Your task to perform on an android device: Open Chrome and go to settings Image 0: 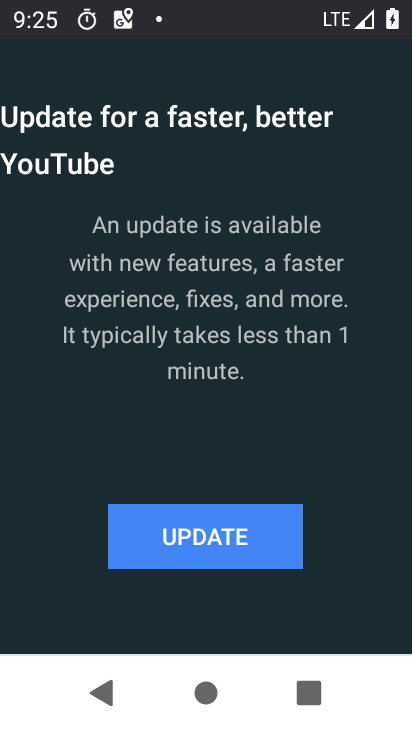
Step 0: press home button
Your task to perform on an android device: Open Chrome and go to settings Image 1: 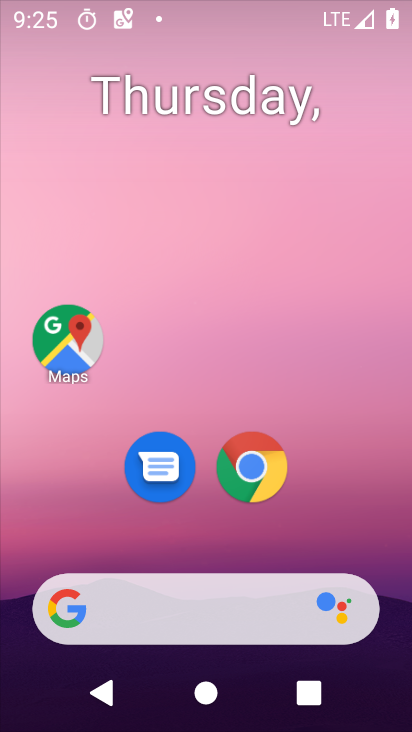
Step 1: drag from (346, 506) to (339, 60)
Your task to perform on an android device: Open Chrome and go to settings Image 2: 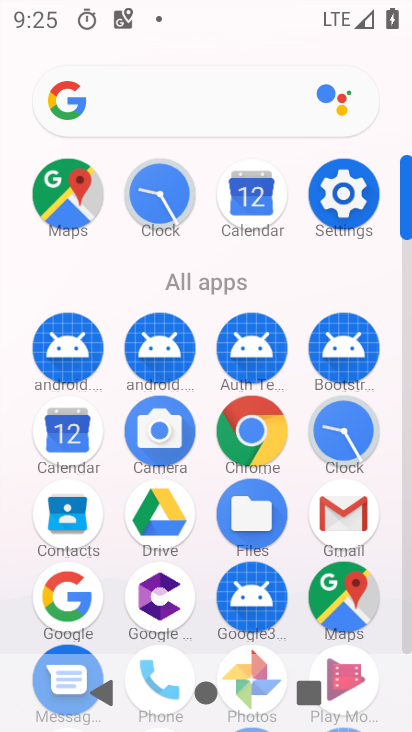
Step 2: click (353, 211)
Your task to perform on an android device: Open Chrome and go to settings Image 3: 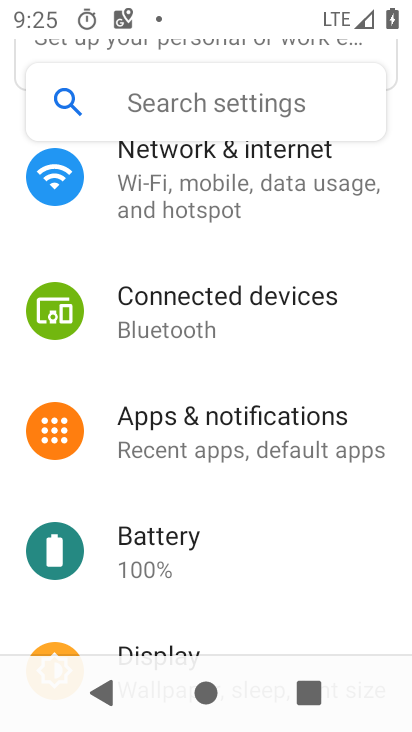
Step 3: press home button
Your task to perform on an android device: Open Chrome and go to settings Image 4: 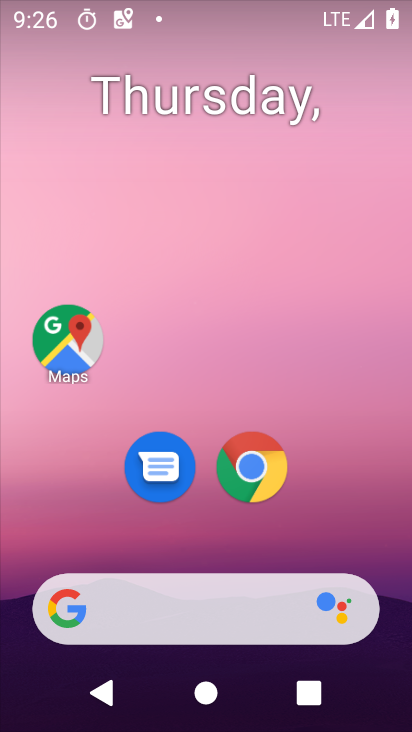
Step 4: click (263, 467)
Your task to perform on an android device: Open Chrome and go to settings Image 5: 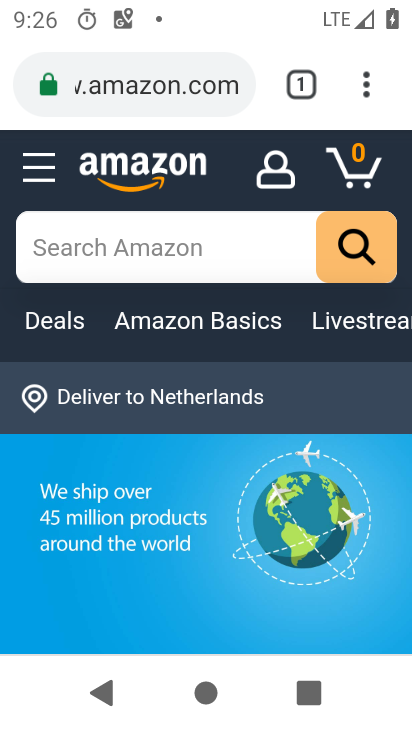
Step 5: click (362, 71)
Your task to perform on an android device: Open Chrome and go to settings Image 6: 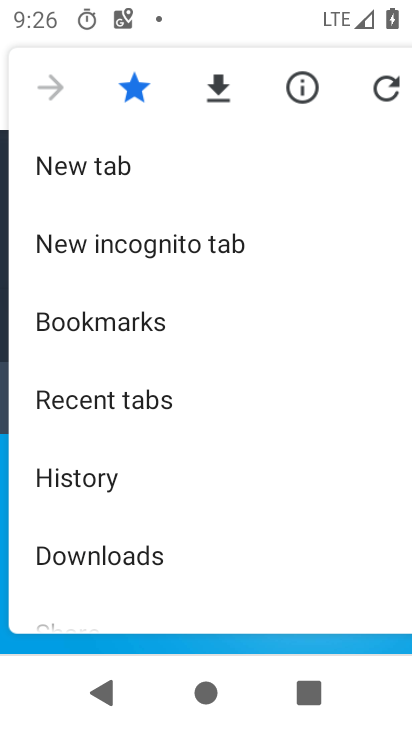
Step 6: drag from (178, 530) to (261, 143)
Your task to perform on an android device: Open Chrome and go to settings Image 7: 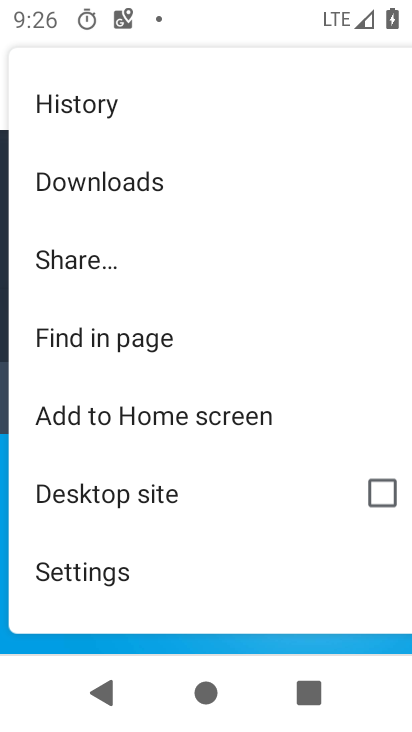
Step 7: click (129, 554)
Your task to perform on an android device: Open Chrome and go to settings Image 8: 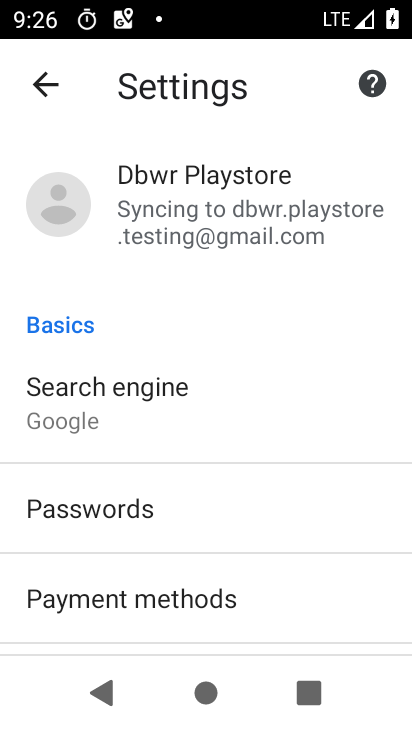
Step 8: task complete